Your task to perform on an android device: Go to display settings Image 0: 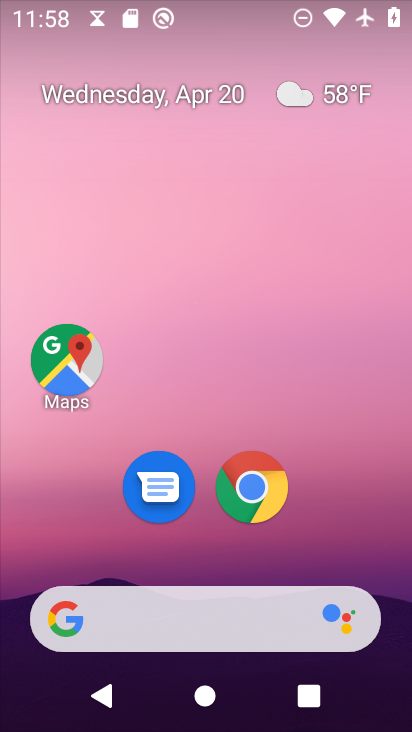
Step 0: drag from (325, 514) to (215, 6)
Your task to perform on an android device: Go to display settings Image 1: 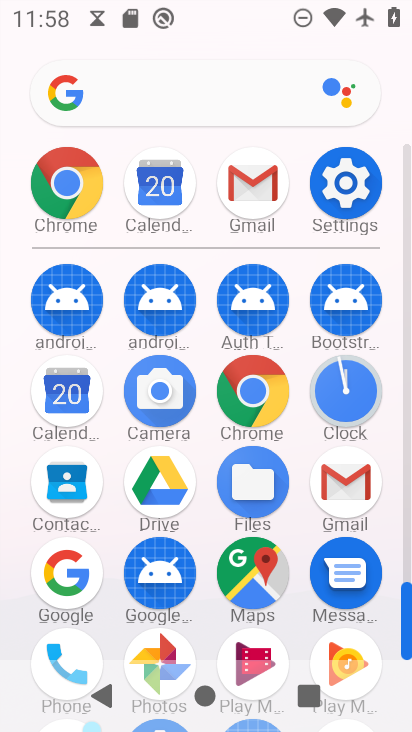
Step 1: drag from (7, 525) to (0, 246)
Your task to perform on an android device: Go to display settings Image 2: 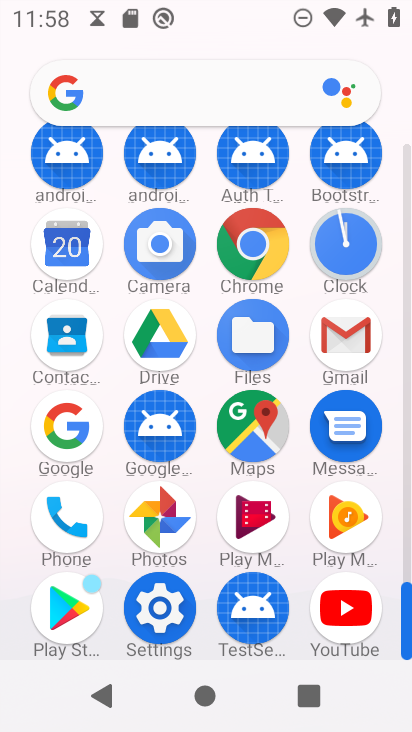
Step 2: click (164, 600)
Your task to perform on an android device: Go to display settings Image 3: 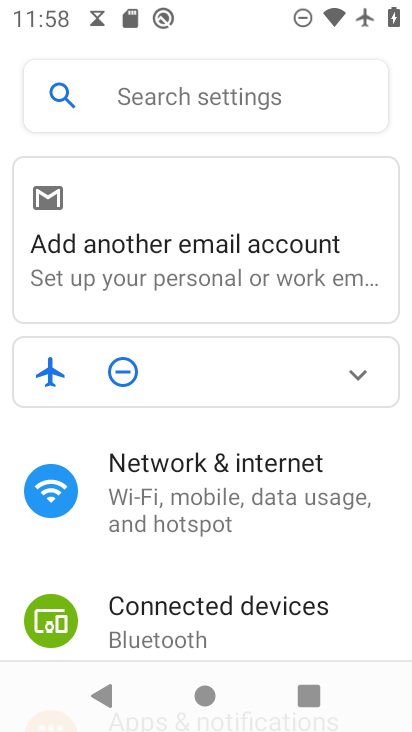
Step 3: drag from (25, 580) to (15, 251)
Your task to perform on an android device: Go to display settings Image 4: 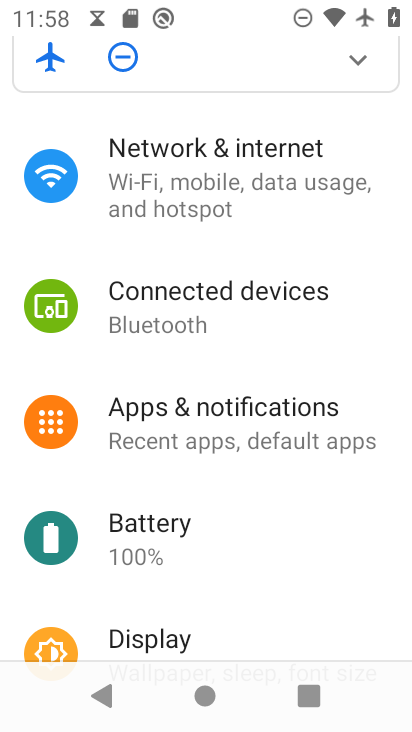
Step 4: click (193, 631)
Your task to perform on an android device: Go to display settings Image 5: 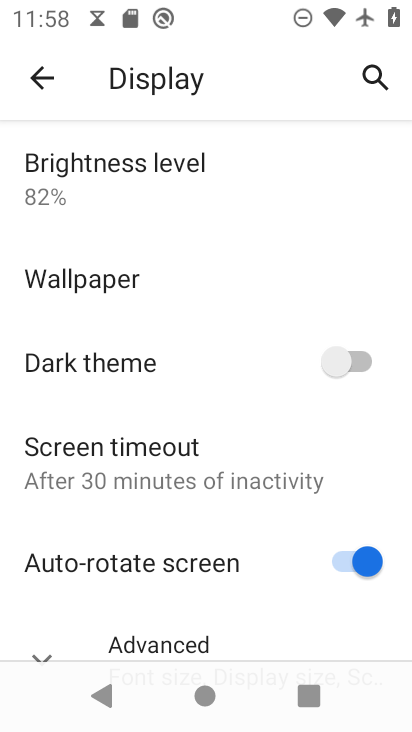
Step 5: drag from (92, 620) to (119, 338)
Your task to perform on an android device: Go to display settings Image 6: 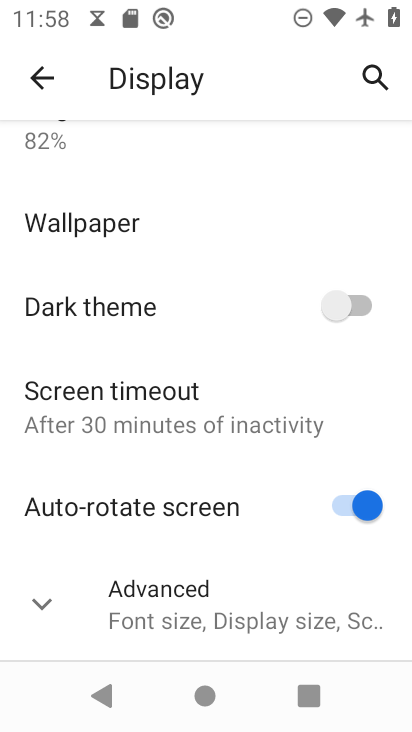
Step 6: click (53, 588)
Your task to perform on an android device: Go to display settings Image 7: 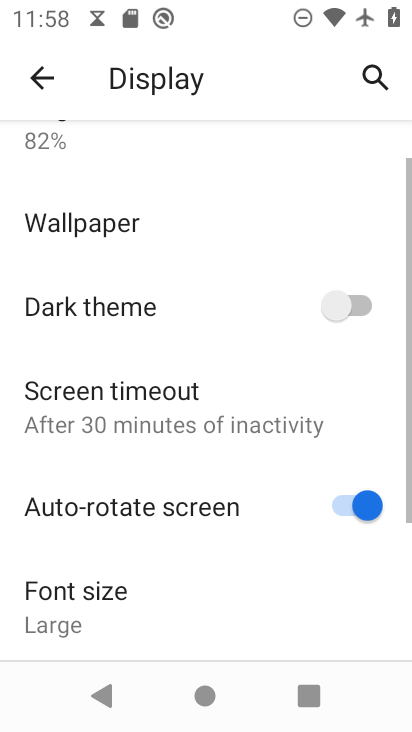
Step 7: task complete